Your task to perform on an android device: Go to accessibility settings Image 0: 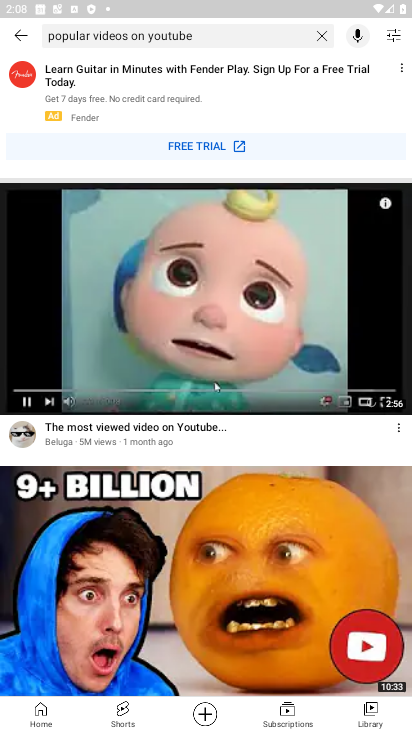
Step 0: press home button
Your task to perform on an android device: Go to accessibility settings Image 1: 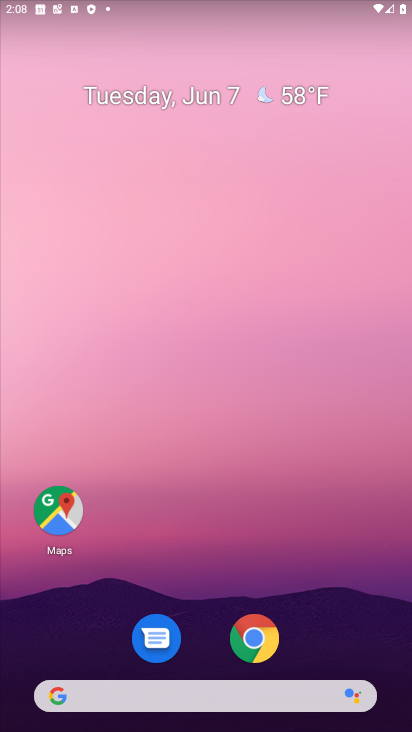
Step 1: drag from (59, 607) to (16, 164)
Your task to perform on an android device: Go to accessibility settings Image 2: 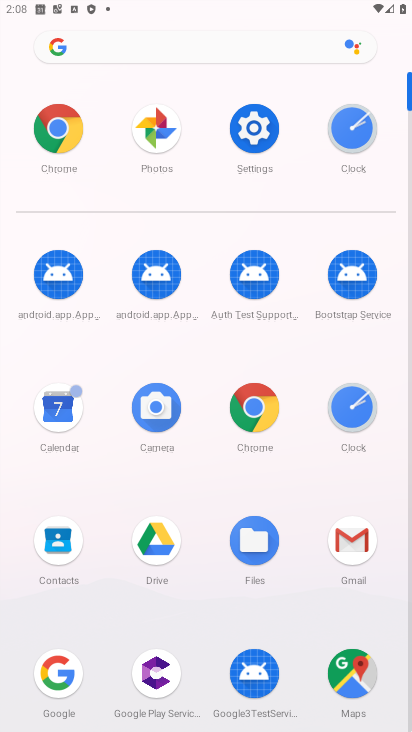
Step 2: click (256, 131)
Your task to perform on an android device: Go to accessibility settings Image 3: 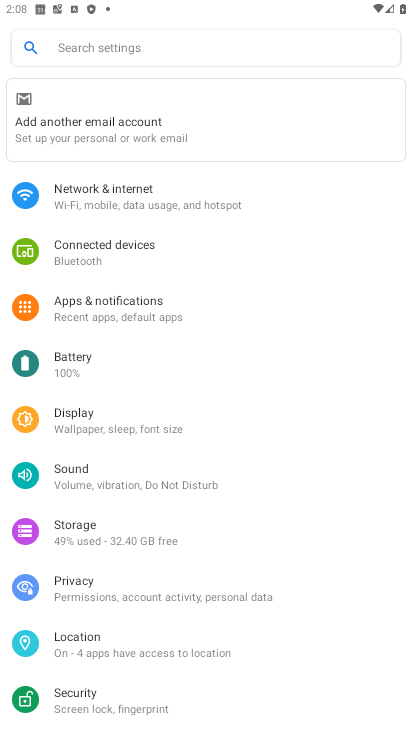
Step 3: drag from (175, 622) to (205, 276)
Your task to perform on an android device: Go to accessibility settings Image 4: 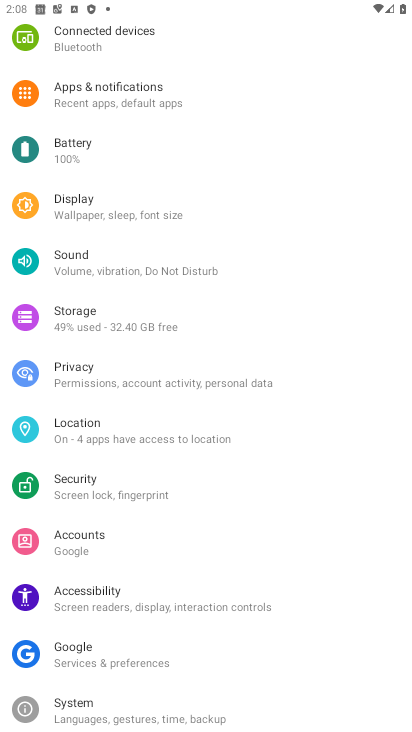
Step 4: click (108, 593)
Your task to perform on an android device: Go to accessibility settings Image 5: 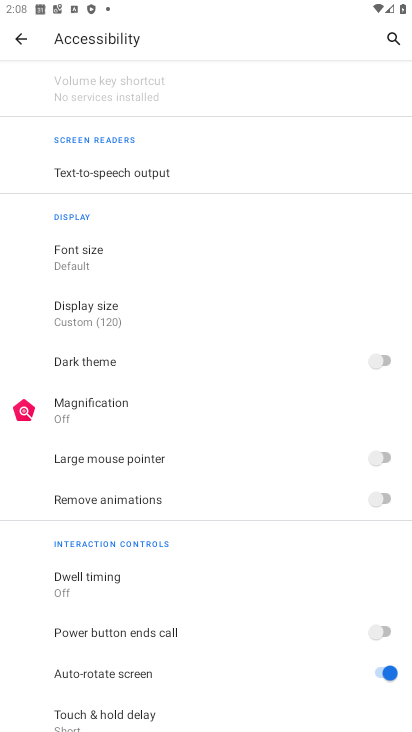
Step 5: task complete